Your task to perform on an android device: Search for Italian restaurants on Maps Image 0: 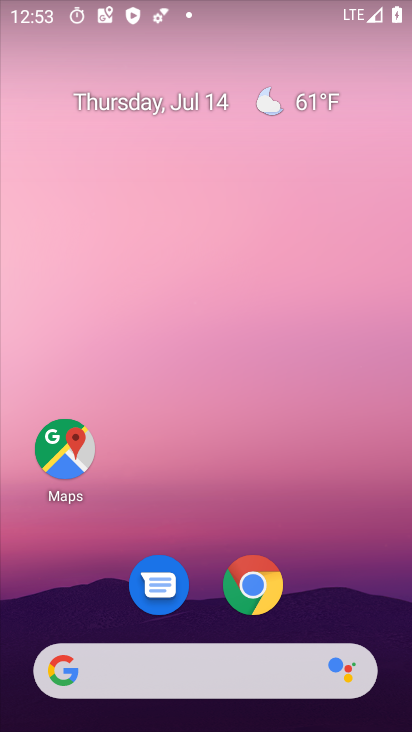
Step 0: click (55, 433)
Your task to perform on an android device: Search for Italian restaurants on Maps Image 1: 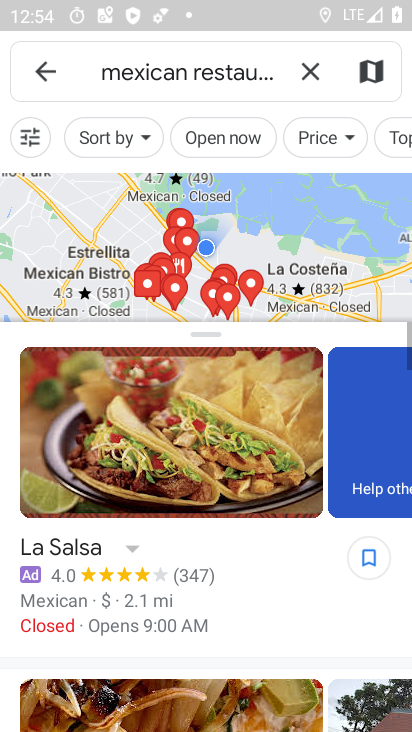
Step 1: click (307, 68)
Your task to perform on an android device: Search for Italian restaurants on Maps Image 2: 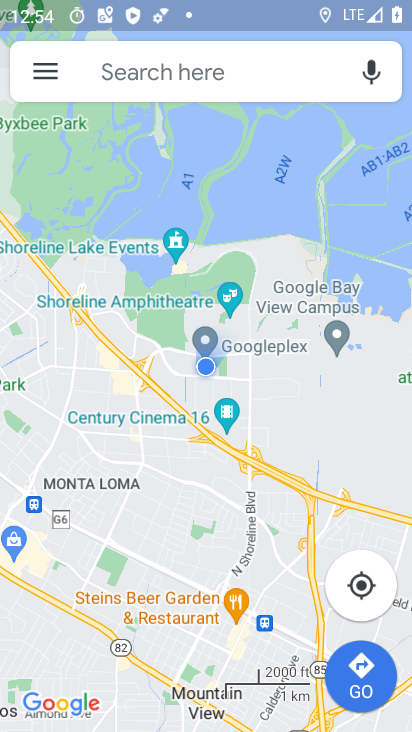
Step 2: click (245, 71)
Your task to perform on an android device: Search for Italian restaurants on Maps Image 3: 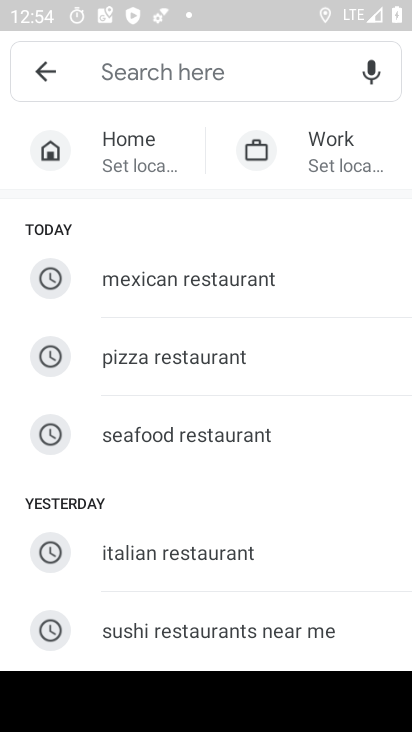
Step 3: click (230, 556)
Your task to perform on an android device: Search for Italian restaurants on Maps Image 4: 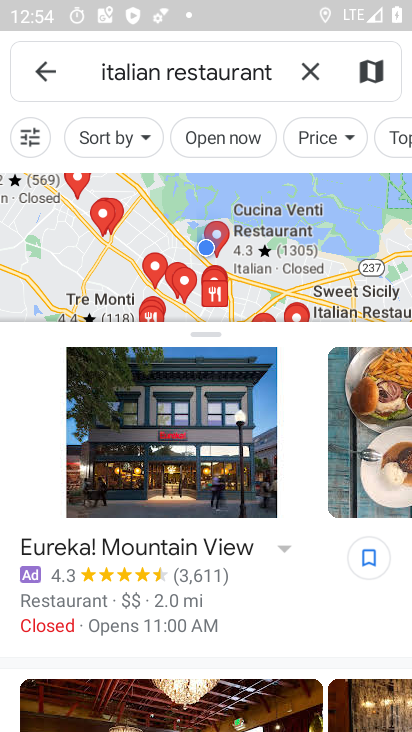
Step 4: task complete